Your task to perform on an android device: turn notification dots on Image 0: 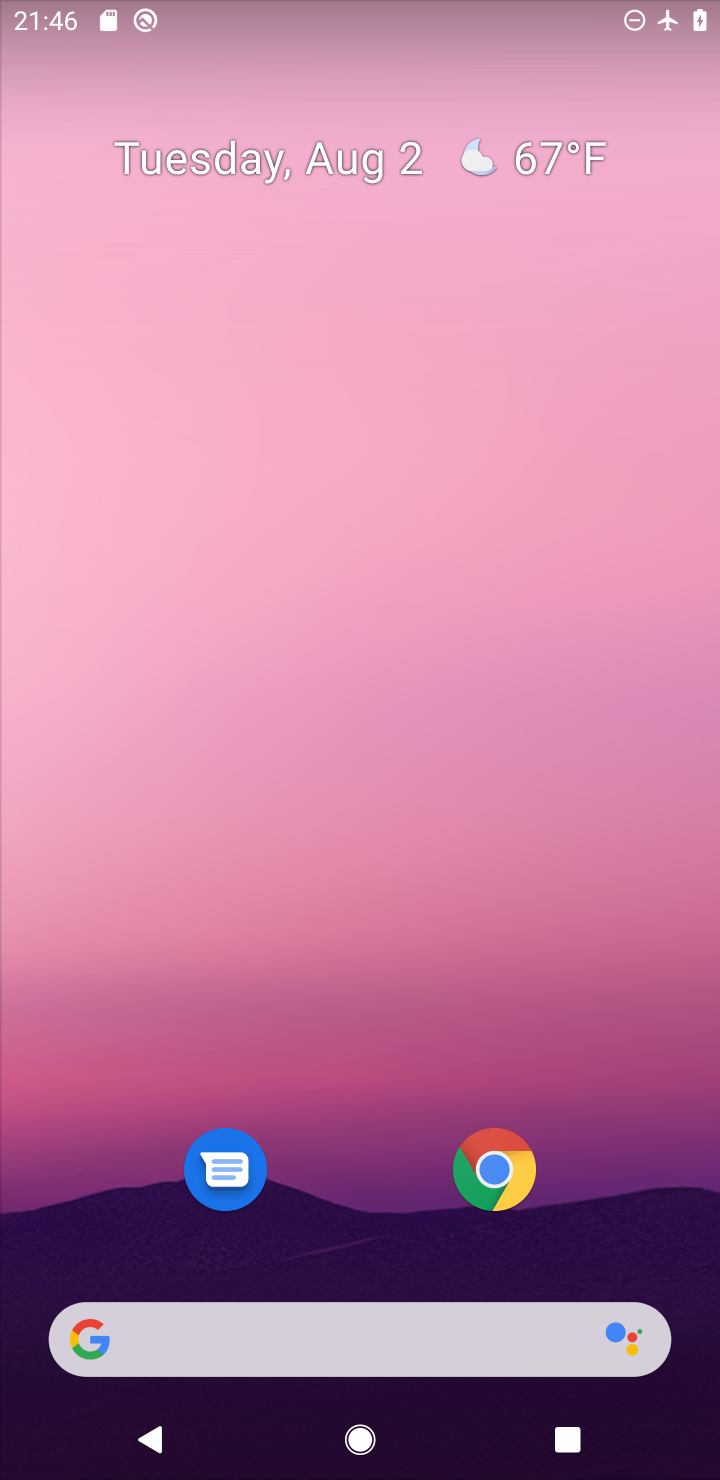
Step 0: drag from (338, 1264) to (368, 232)
Your task to perform on an android device: turn notification dots on Image 1: 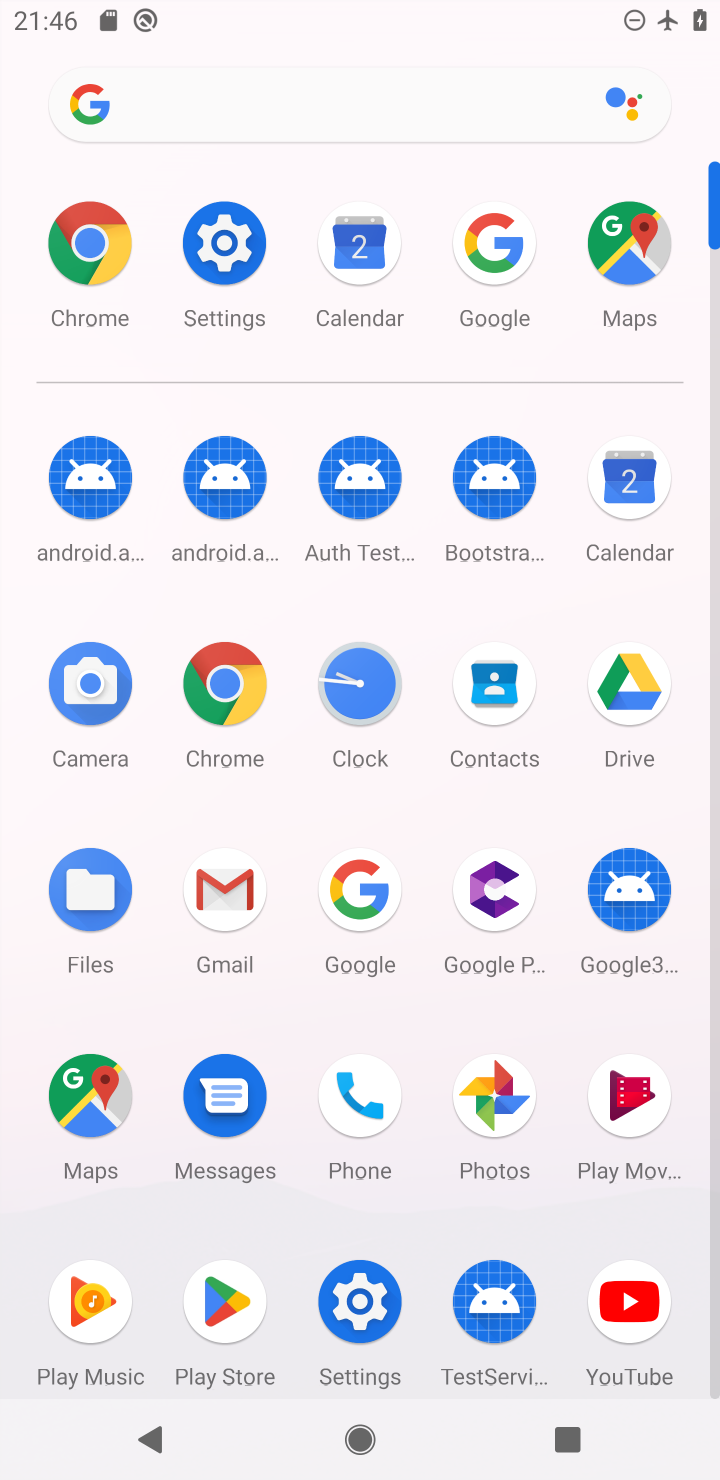
Step 1: click (225, 245)
Your task to perform on an android device: turn notification dots on Image 2: 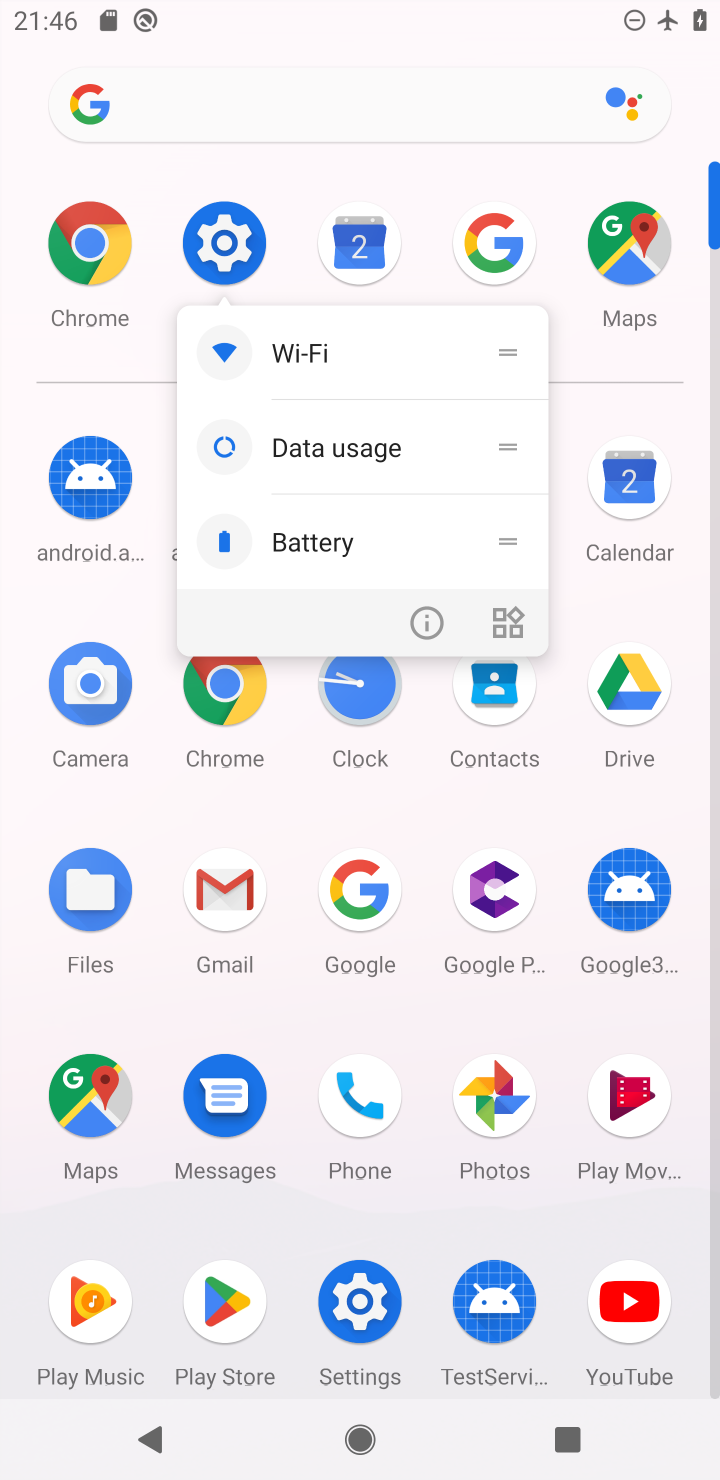
Step 2: click (225, 248)
Your task to perform on an android device: turn notification dots on Image 3: 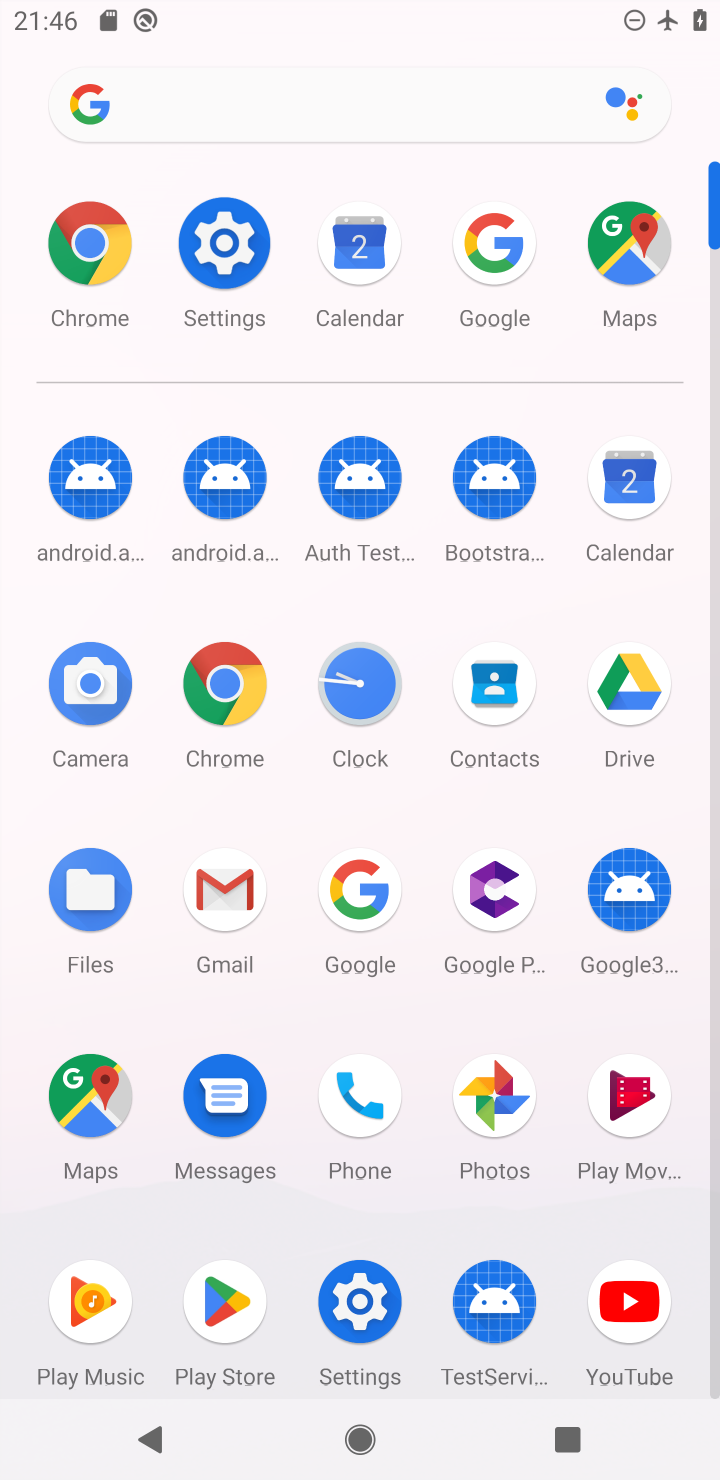
Step 3: click (231, 253)
Your task to perform on an android device: turn notification dots on Image 4: 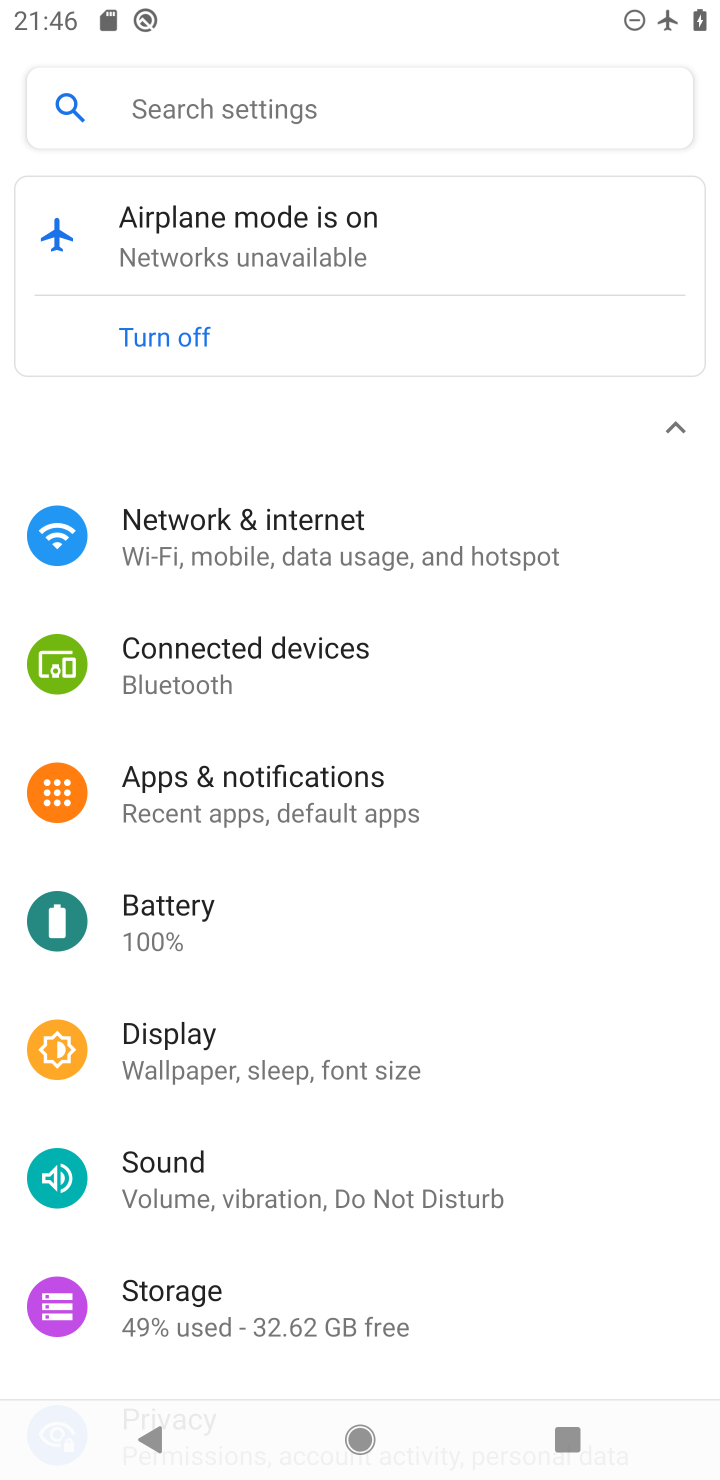
Step 4: click (228, 799)
Your task to perform on an android device: turn notification dots on Image 5: 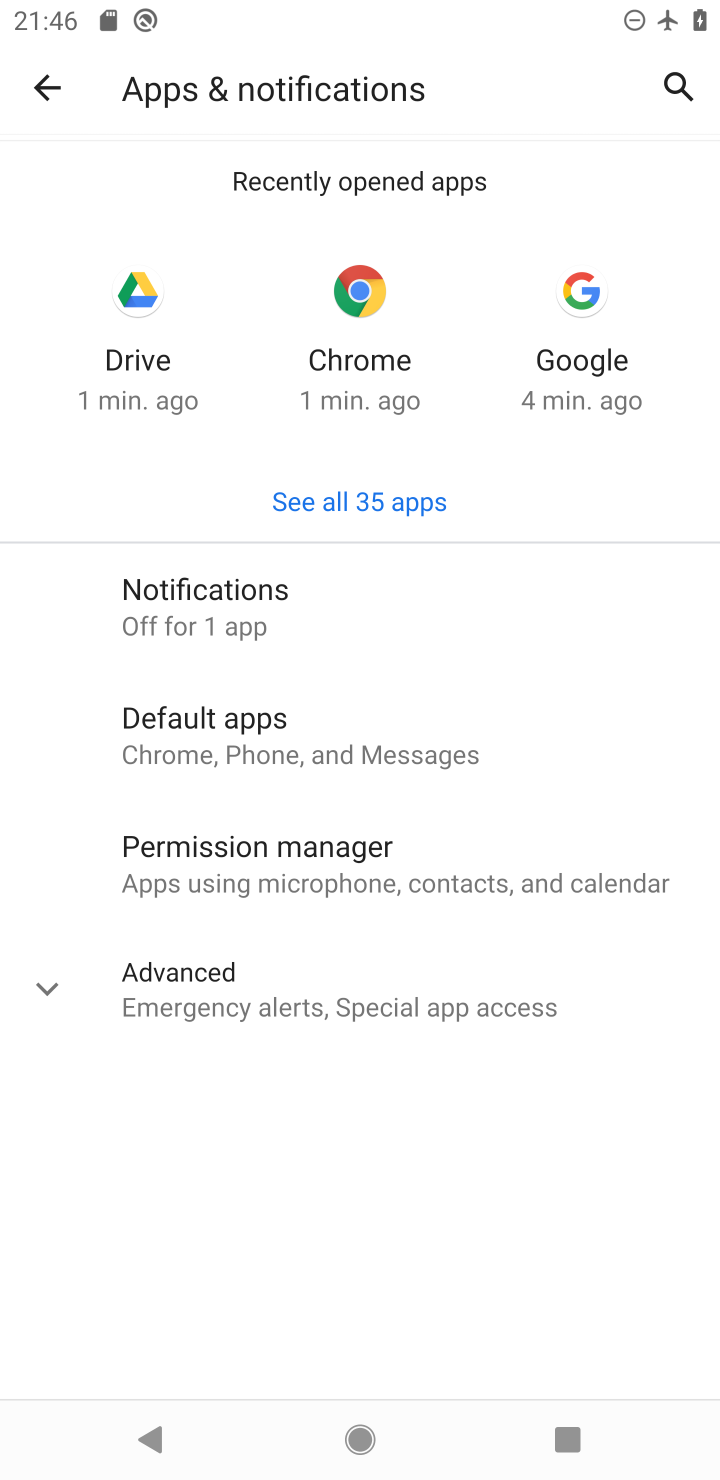
Step 5: click (167, 627)
Your task to perform on an android device: turn notification dots on Image 6: 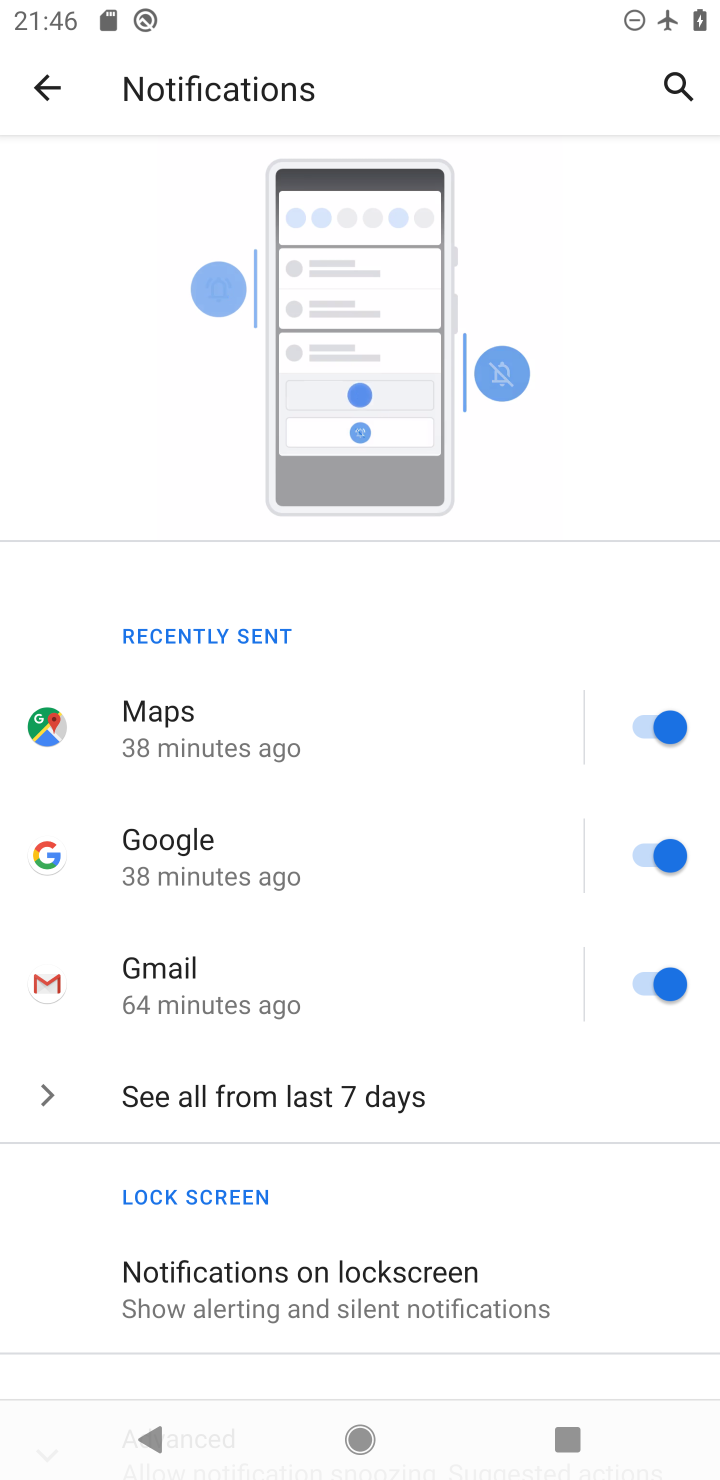
Step 6: drag from (522, 1248) to (522, 517)
Your task to perform on an android device: turn notification dots on Image 7: 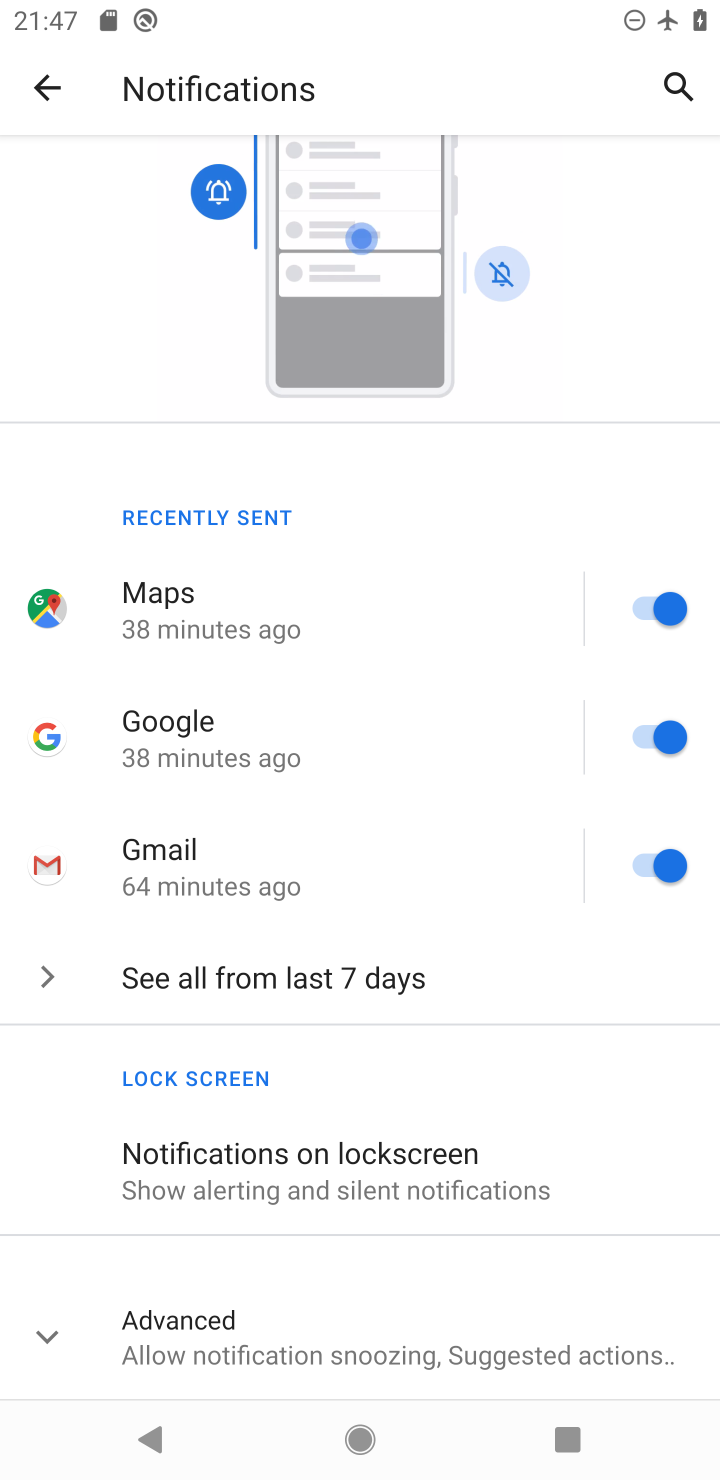
Step 7: click (143, 1351)
Your task to perform on an android device: turn notification dots on Image 8: 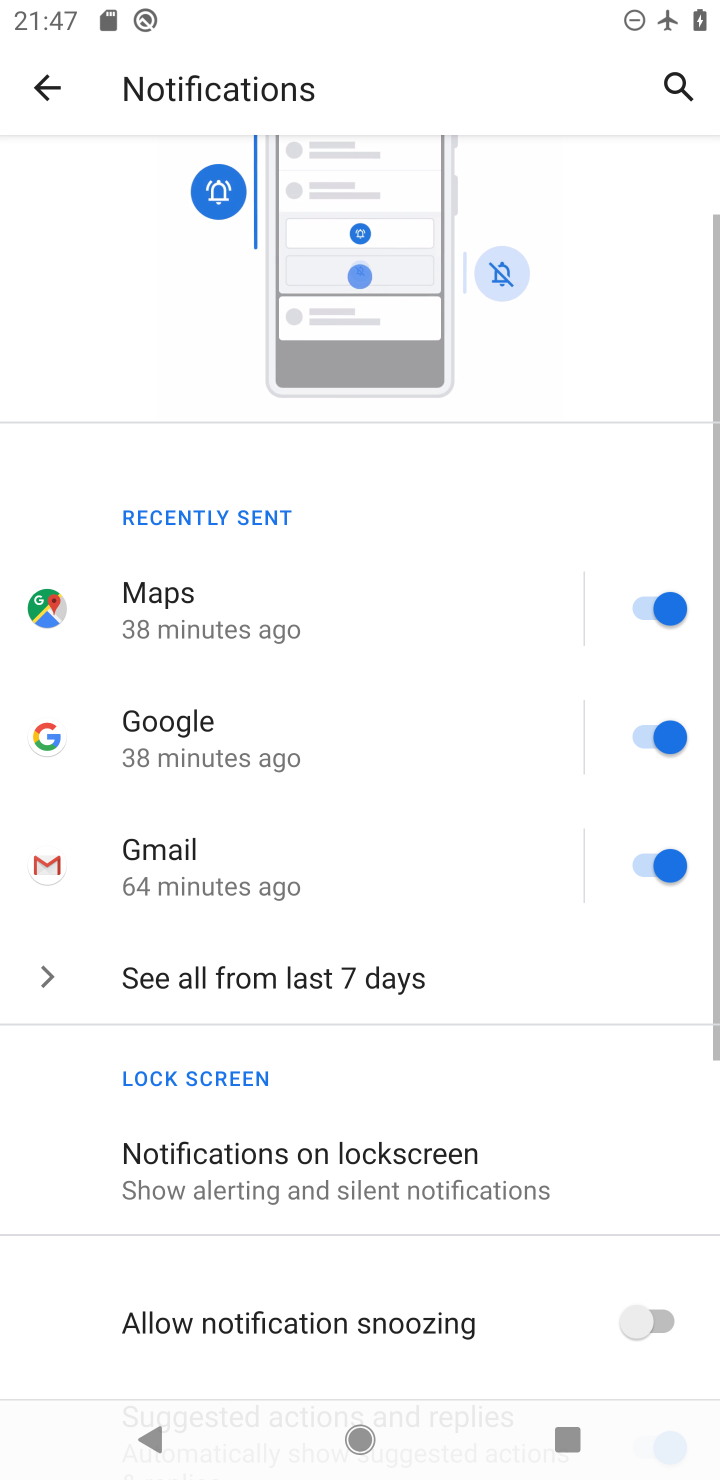
Step 8: task complete